Your task to perform on an android device: toggle airplane mode Image 0: 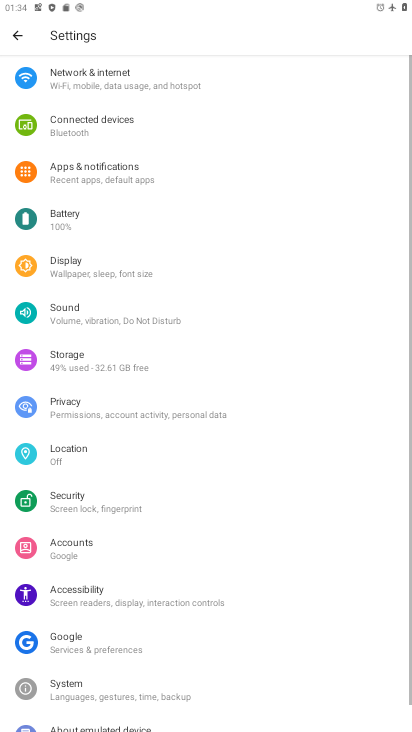
Step 0: press home button
Your task to perform on an android device: toggle airplane mode Image 1: 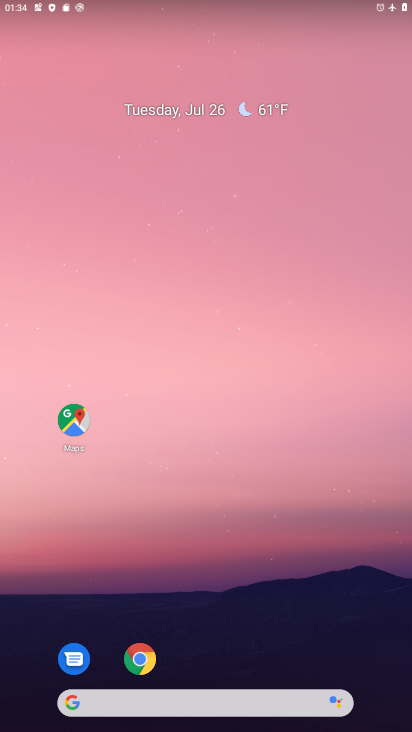
Step 1: drag from (293, 621) to (167, 110)
Your task to perform on an android device: toggle airplane mode Image 2: 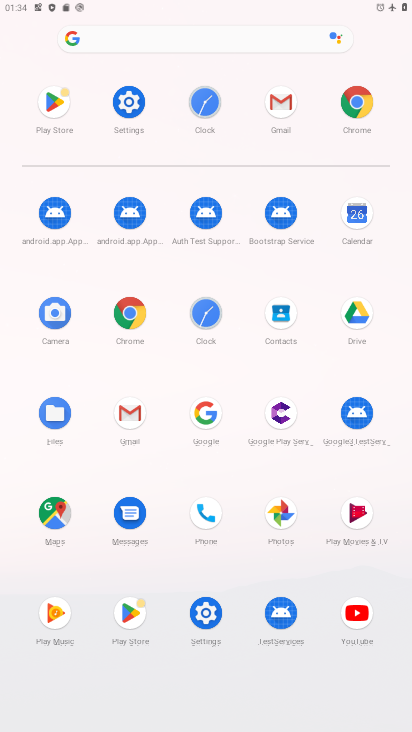
Step 2: click (125, 86)
Your task to perform on an android device: toggle airplane mode Image 3: 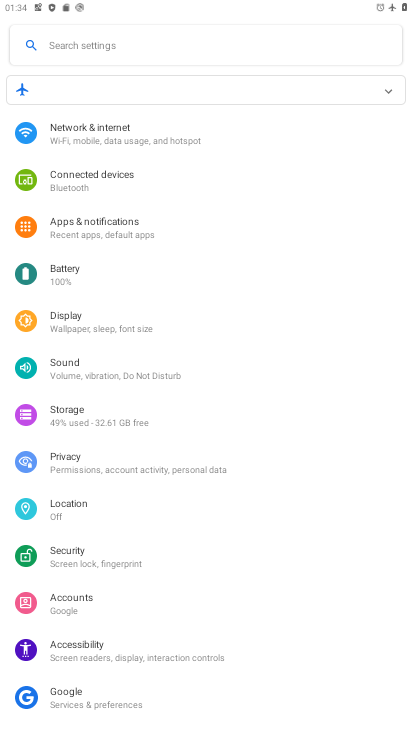
Step 3: click (125, 141)
Your task to perform on an android device: toggle airplane mode Image 4: 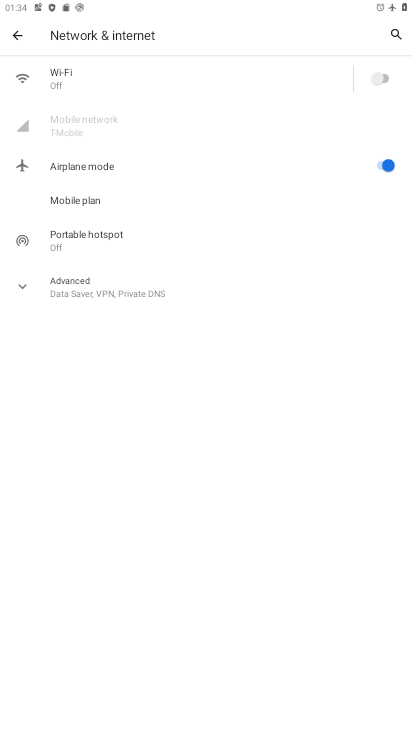
Step 4: click (375, 160)
Your task to perform on an android device: toggle airplane mode Image 5: 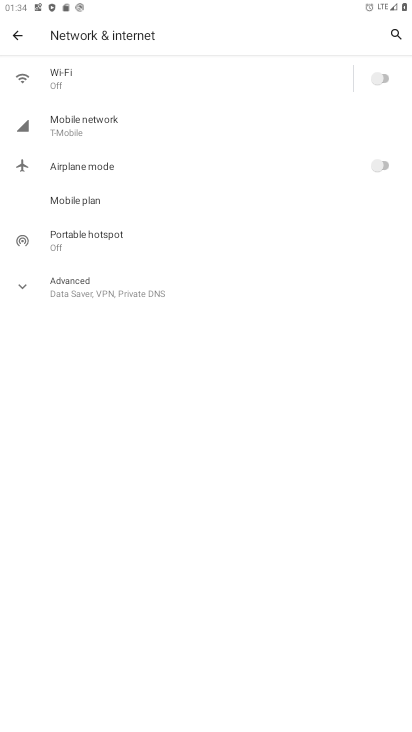
Step 5: task complete